Your task to perform on an android device: check storage Image 0: 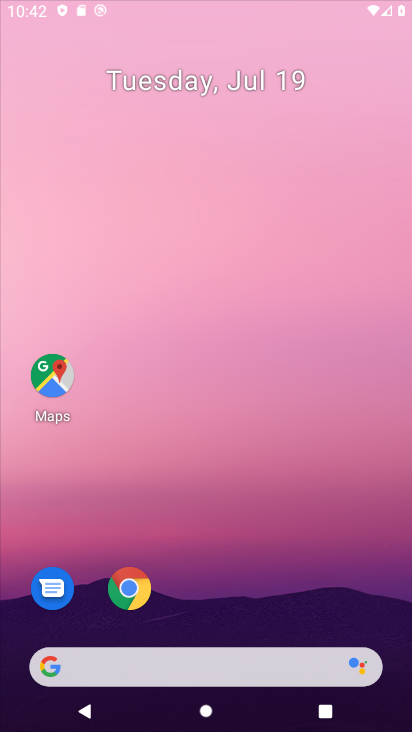
Step 0: drag from (391, 639) to (174, 64)
Your task to perform on an android device: check storage Image 1: 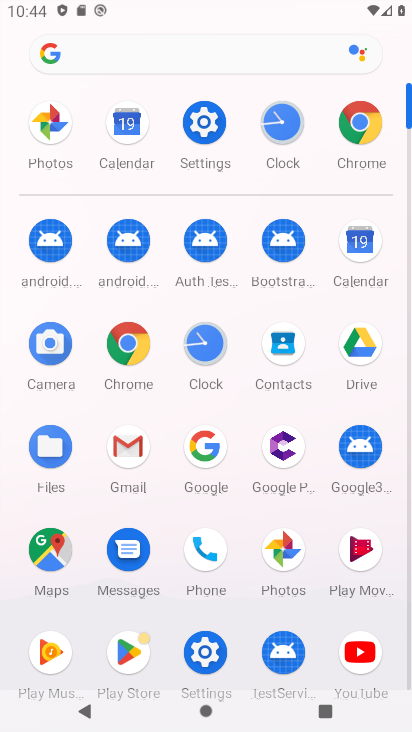
Step 1: click (213, 677)
Your task to perform on an android device: check storage Image 2: 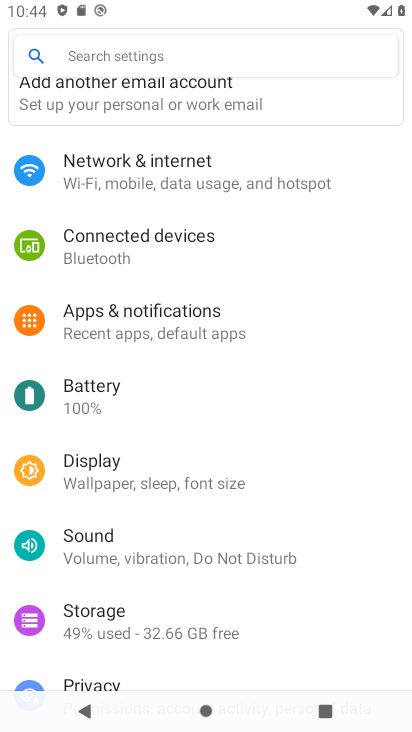
Step 2: click (111, 610)
Your task to perform on an android device: check storage Image 3: 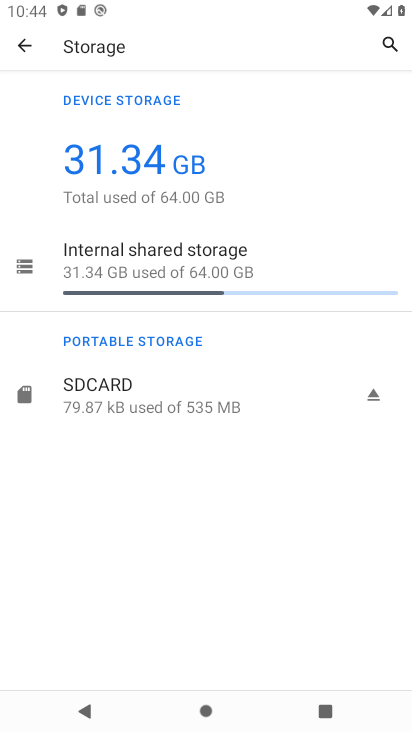
Step 3: click (139, 266)
Your task to perform on an android device: check storage Image 4: 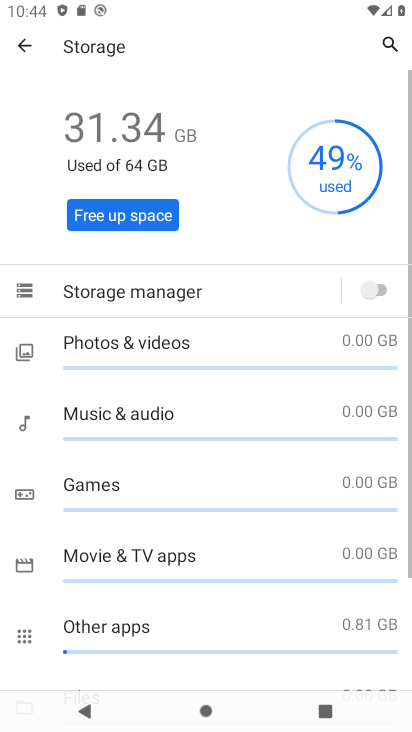
Step 4: task complete